Your task to perform on an android device: check data usage Image 0: 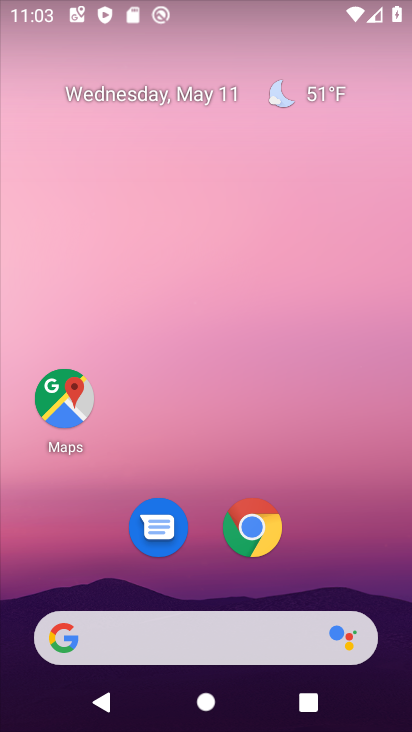
Step 0: drag from (347, 547) to (257, 38)
Your task to perform on an android device: check data usage Image 1: 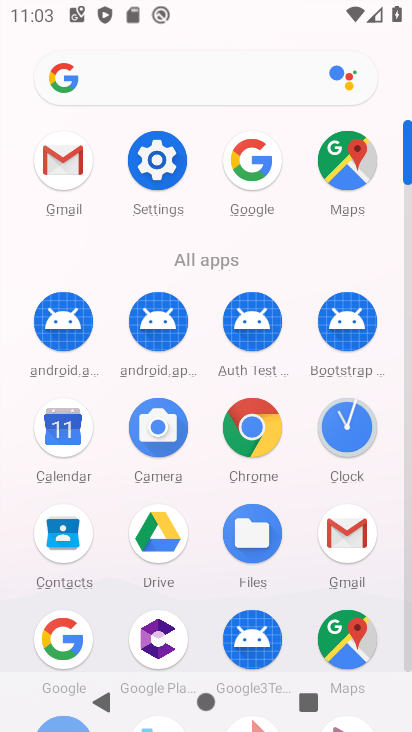
Step 1: click (155, 158)
Your task to perform on an android device: check data usage Image 2: 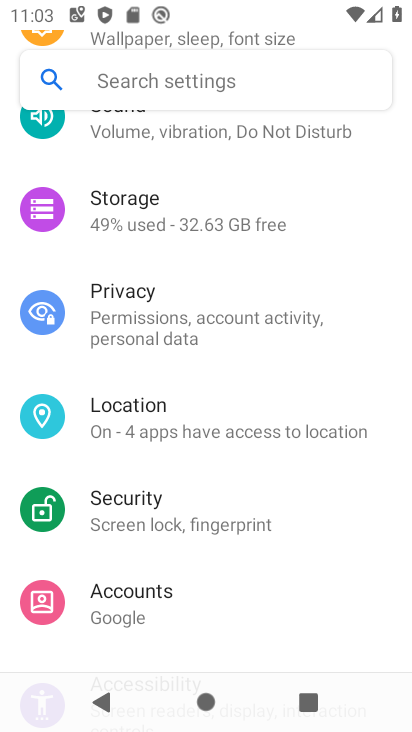
Step 2: drag from (155, 158) to (157, 300)
Your task to perform on an android device: check data usage Image 3: 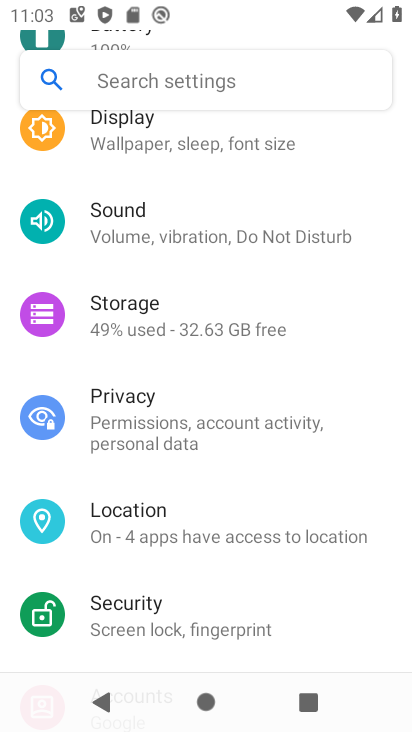
Step 3: drag from (174, 171) to (176, 348)
Your task to perform on an android device: check data usage Image 4: 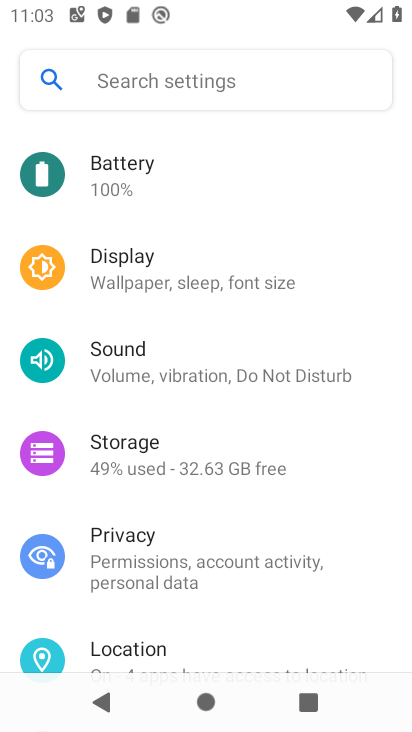
Step 4: drag from (169, 213) to (207, 326)
Your task to perform on an android device: check data usage Image 5: 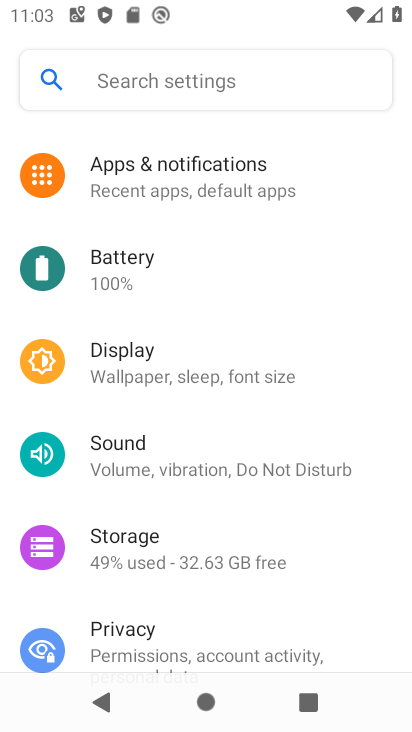
Step 5: drag from (193, 239) to (239, 347)
Your task to perform on an android device: check data usage Image 6: 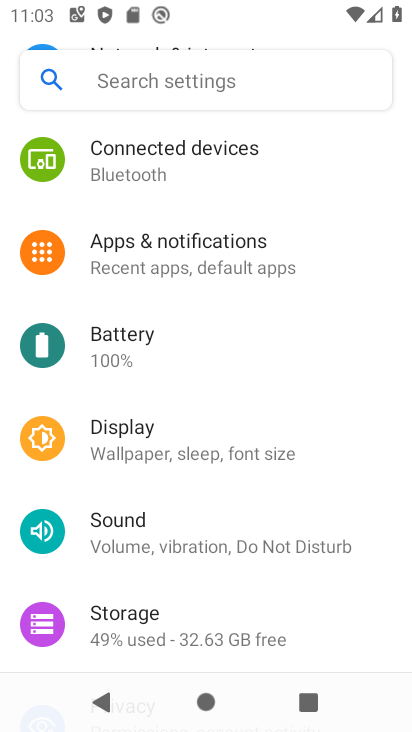
Step 6: drag from (192, 196) to (232, 396)
Your task to perform on an android device: check data usage Image 7: 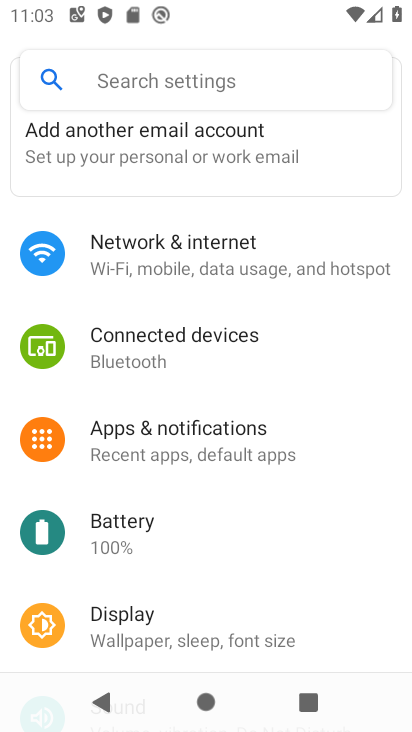
Step 7: click (172, 271)
Your task to perform on an android device: check data usage Image 8: 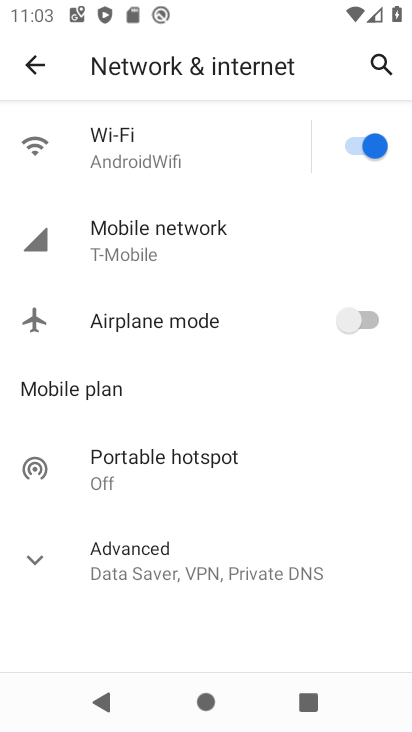
Step 8: click (156, 245)
Your task to perform on an android device: check data usage Image 9: 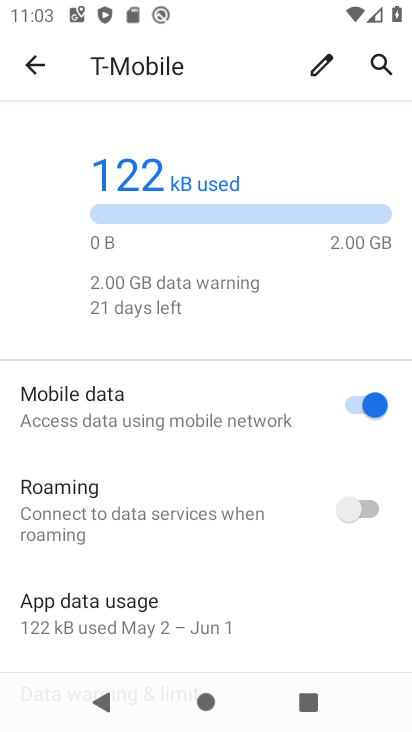
Step 9: task complete